Your task to perform on an android device: open sync settings in chrome Image 0: 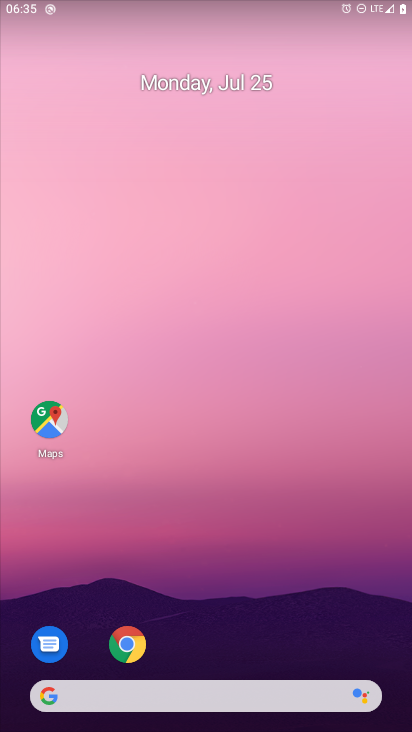
Step 0: drag from (254, 641) to (203, 175)
Your task to perform on an android device: open sync settings in chrome Image 1: 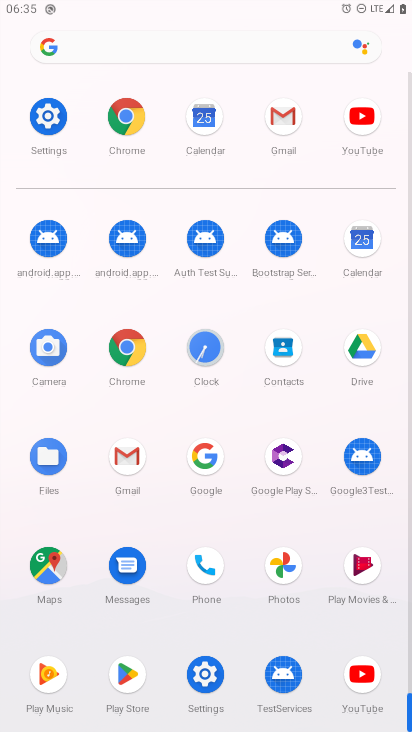
Step 1: click (131, 118)
Your task to perform on an android device: open sync settings in chrome Image 2: 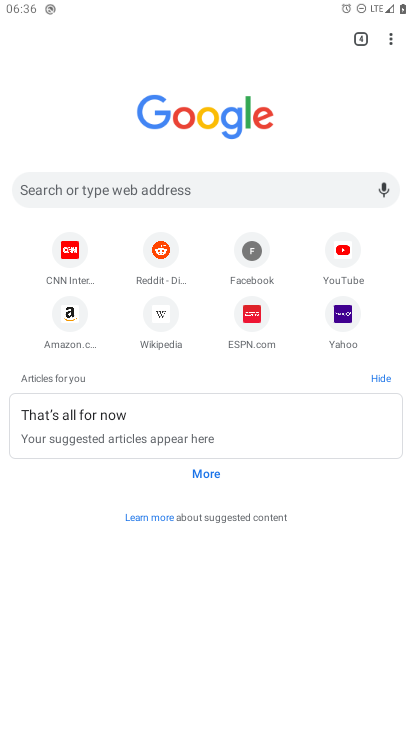
Step 2: drag from (398, 37) to (265, 330)
Your task to perform on an android device: open sync settings in chrome Image 3: 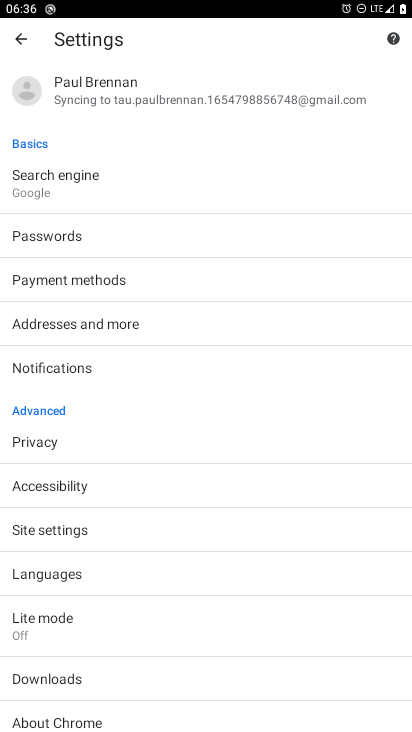
Step 3: click (135, 88)
Your task to perform on an android device: open sync settings in chrome Image 4: 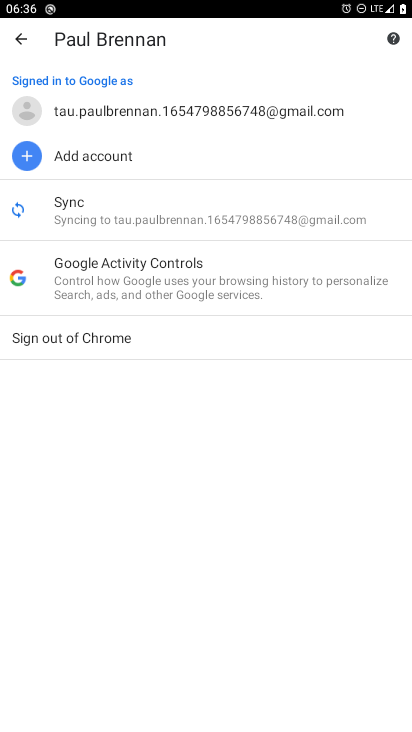
Step 4: click (92, 214)
Your task to perform on an android device: open sync settings in chrome Image 5: 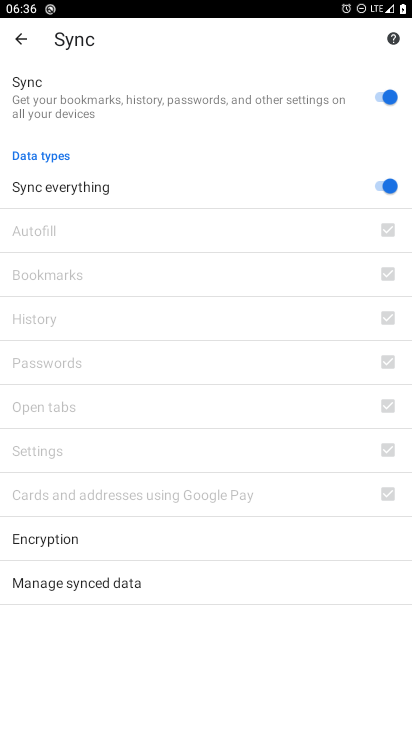
Step 5: task complete